Your task to perform on an android device: Open Chrome and go to settings Image 0: 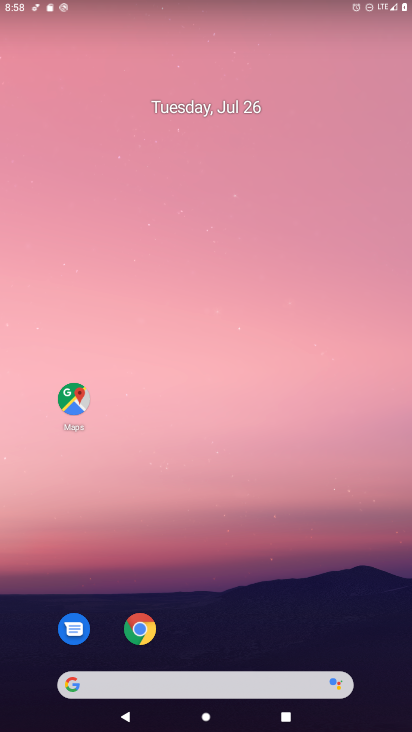
Step 0: drag from (249, 666) to (234, 58)
Your task to perform on an android device: Open Chrome and go to settings Image 1: 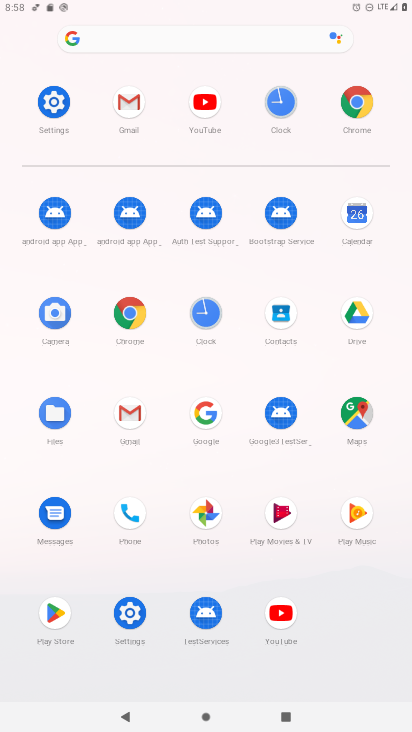
Step 1: click (132, 314)
Your task to perform on an android device: Open Chrome and go to settings Image 2: 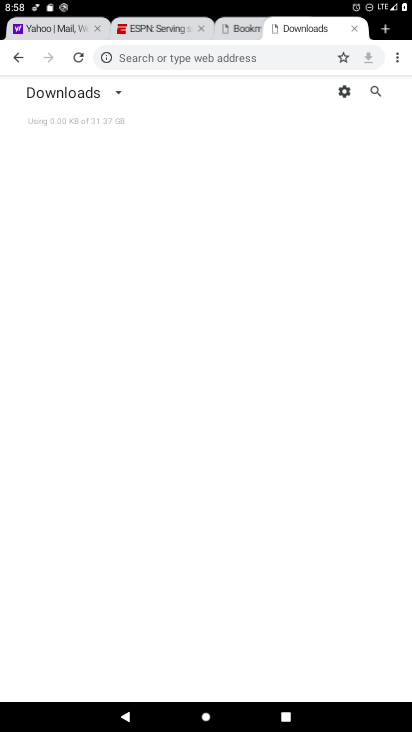
Step 2: task complete